Your task to perform on an android device: Is it going to rain this weekend? Image 0: 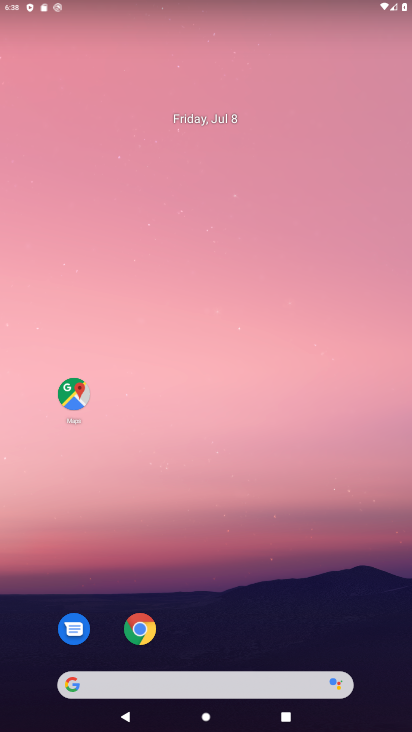
Step 0: press home button
Your task to perform on an android device: Is it going to rain this weekend? Image 1: 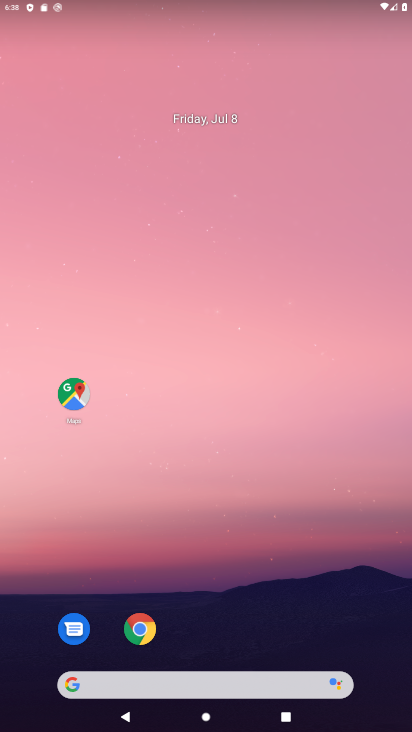
Step 1: click (142, 636)
Your task to perform on an android device: Is it going to rain this weekend? Image 2: 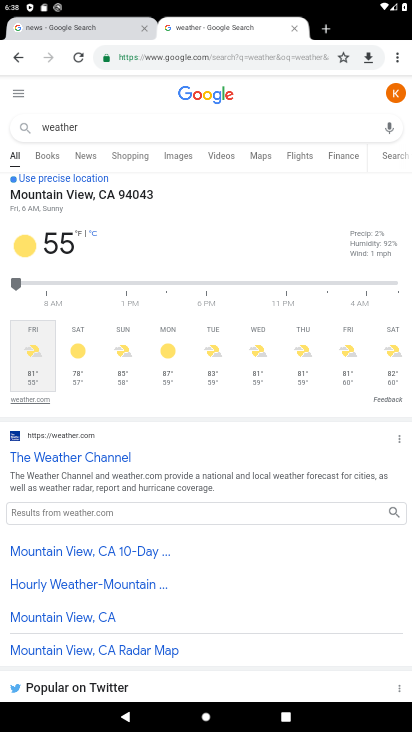
Step 2: click (236, 61)
Your task to perform on an android device: Is it going to rain this weekend? Image 3: 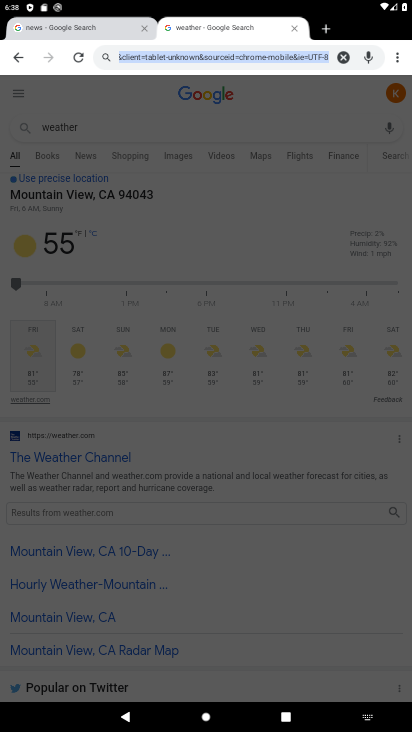
Step 3: type "Is it going to rain this weekend?"
Your task to perform on an android device: Is it going to rain this weekend? Image 4: 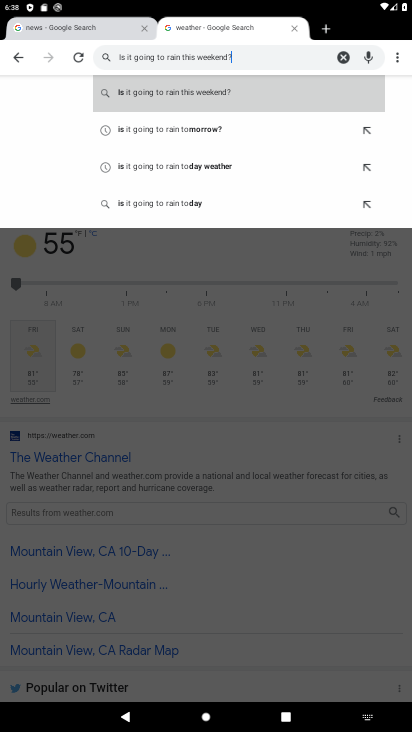
Step 4: type ""
Your task to perform on an android device: Is it going to rain this weekend? Image 5: 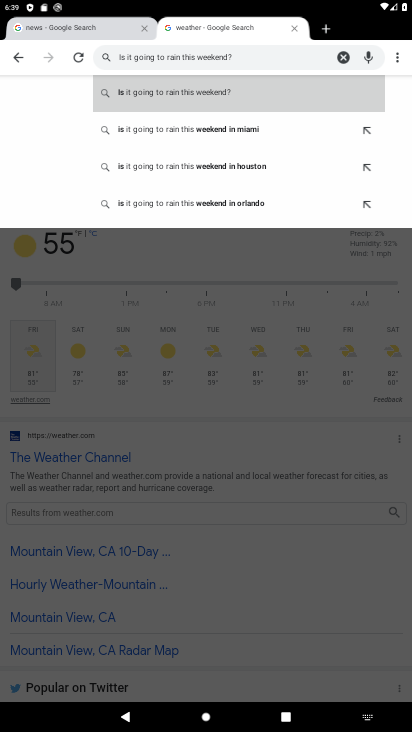
Step 5: click (142, 92)
Your task to perform on an android device: Is it going to rain this weekend? Image 6: 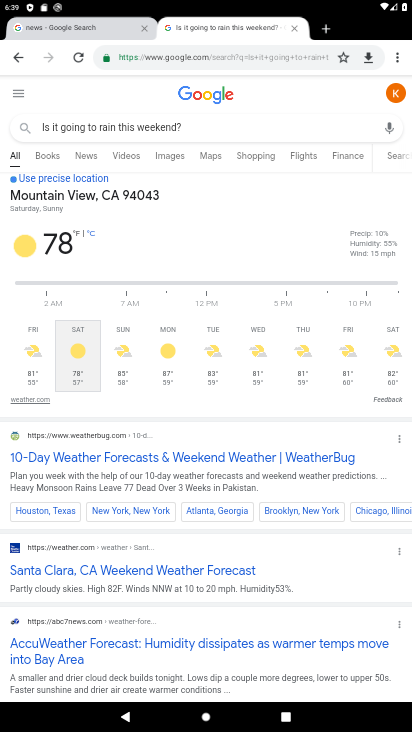
Step 6: task complete